Your task to perform on an android device: turn on airplane mode Image 0: 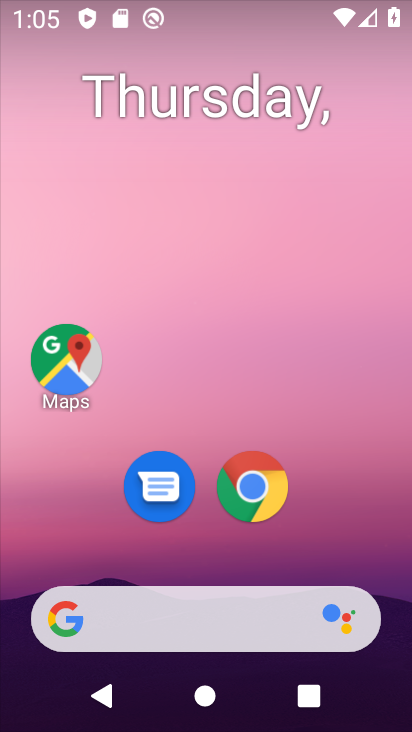
Step 0: drag from (378, 543) to (290, 85)
Your task to perform on an android device: turn on airplane mode Image 1: 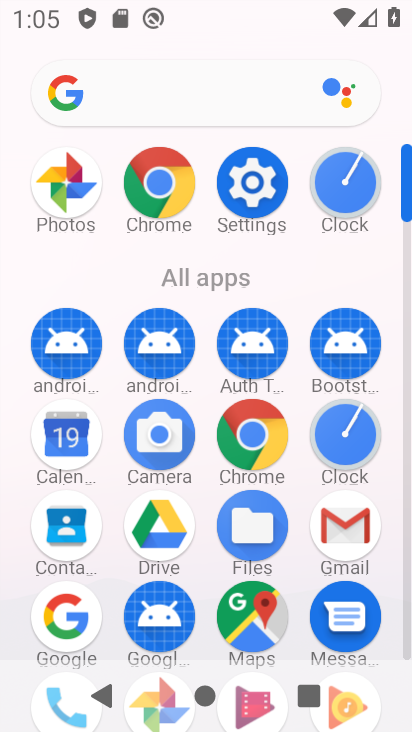
Step 1: click (242, 187)
Your task to perform on an android device: turn on airplane mode Image 2: 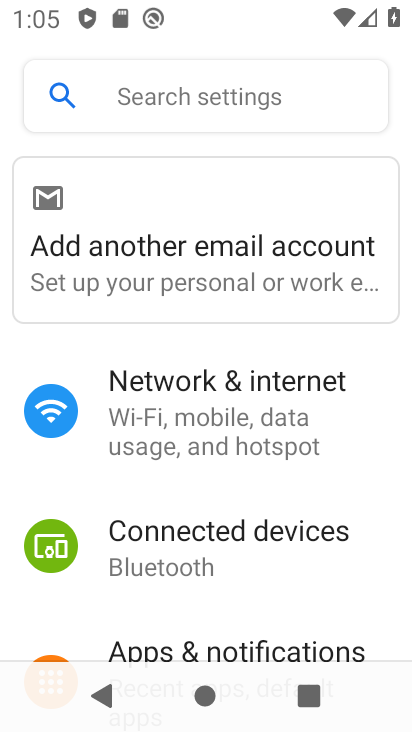
Step 2: click (262, 409)
Your task to perform on an android device: turn on airplane mode Image 3: 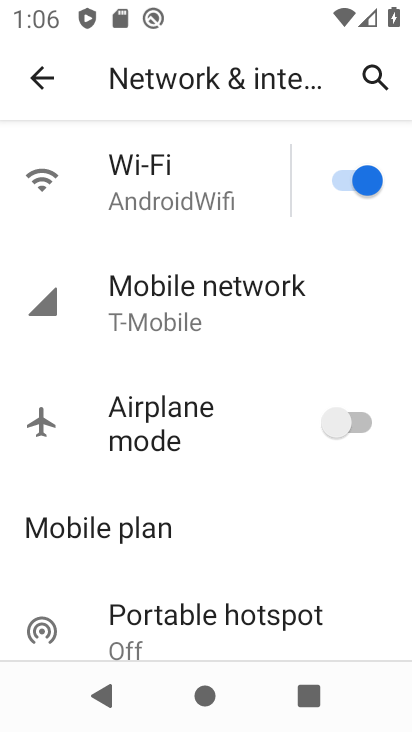
Step 3: click (331, 427)
Your task to perform on an android device: turn on airplane mode Image 4: 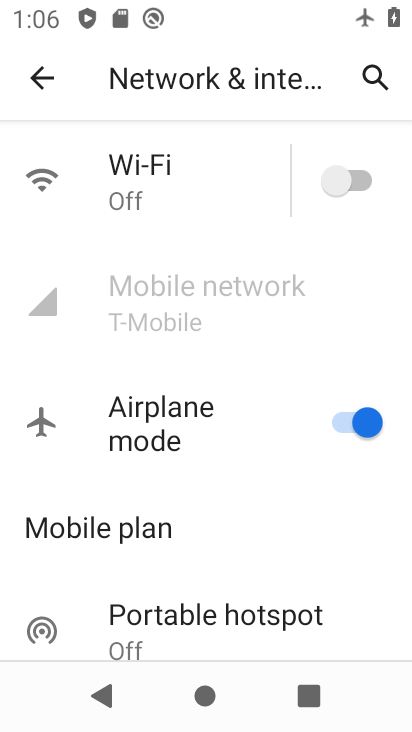
Step 4: task complete